Your task to perform on an android device: Go to location settings Image 0: 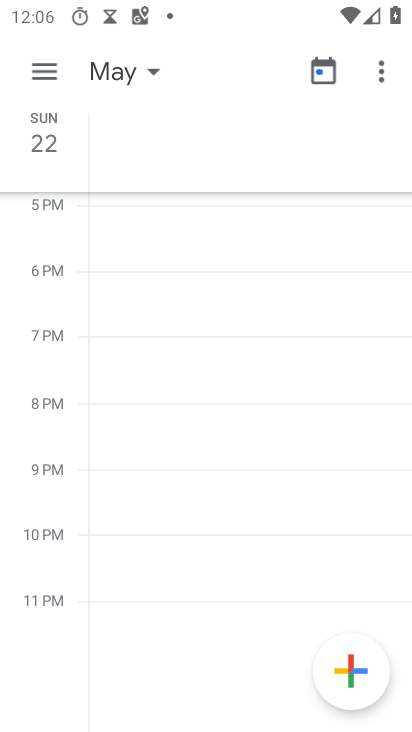
Step 0: press home button
Your task to perform on an android device: Go to location settings Image 1: 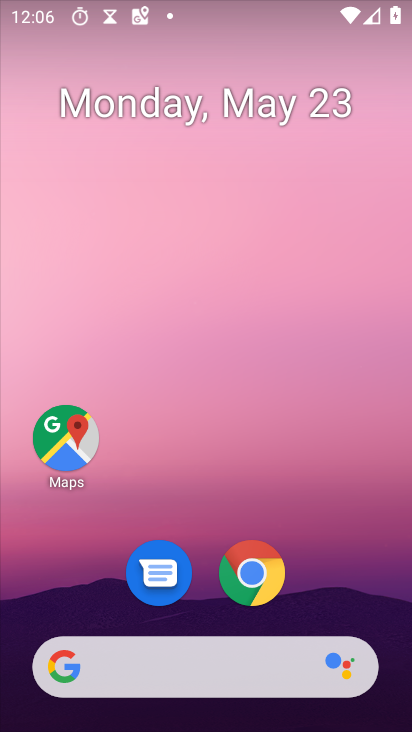
Step 1: drag from (152, 670) to (277, 192)
Your task to perform on an android device: Go to location settings Image 2: 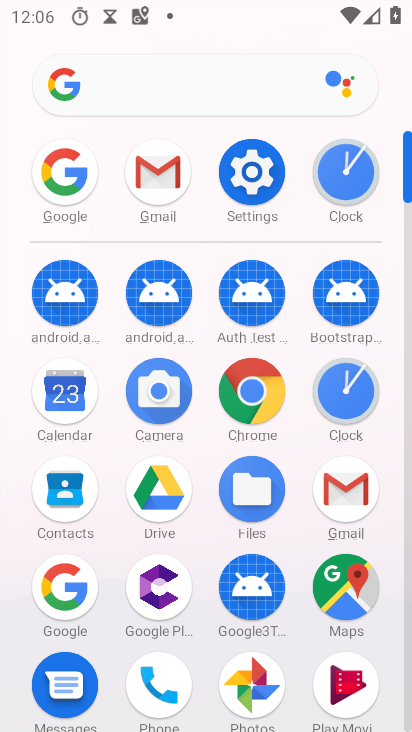
Step 2: click (267, 180)
Your task to perform on an android device: Go to location settings Image 3: 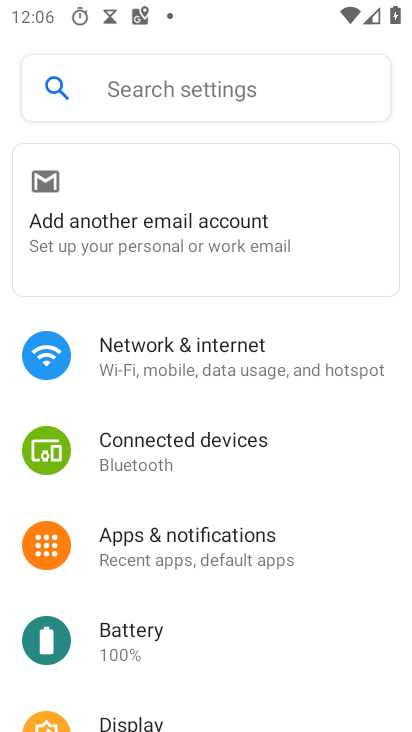
Step 3: drag from (253, 626) to (323, 229)
Your task to perform on an android device: Go to location settings Image 4: 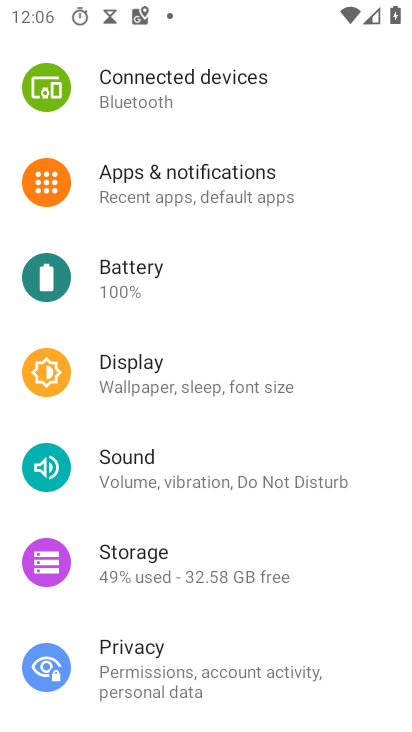
Step 4: drag from (193, 638) to (335, 221)
Your task to perform on an android device: Go to location settings Image 5: 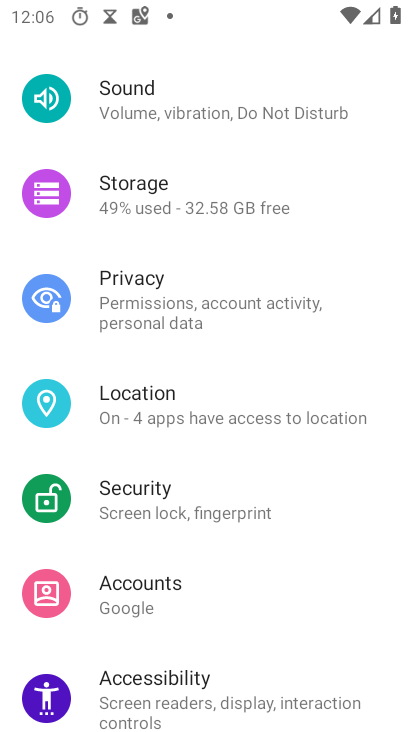
Step 5: click (201, 406)
Your task to perform on an android device: Go to location settings Image 6: 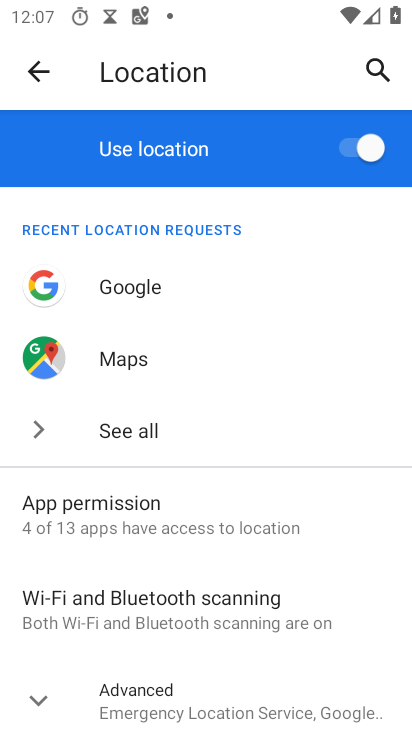
Step 6: task complete